Your task to perform on an android device: clear history in the chrome app Image 0: 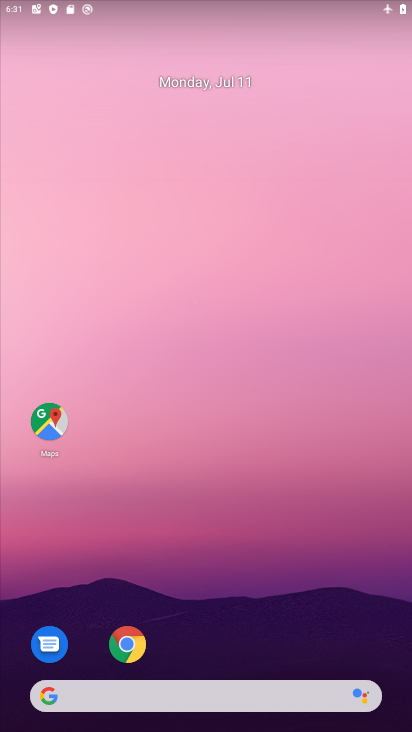
Step 0: drag from (112, 696) to (212, 95)
Your task to perform on an android device: clear history in the chrome app Image 1: 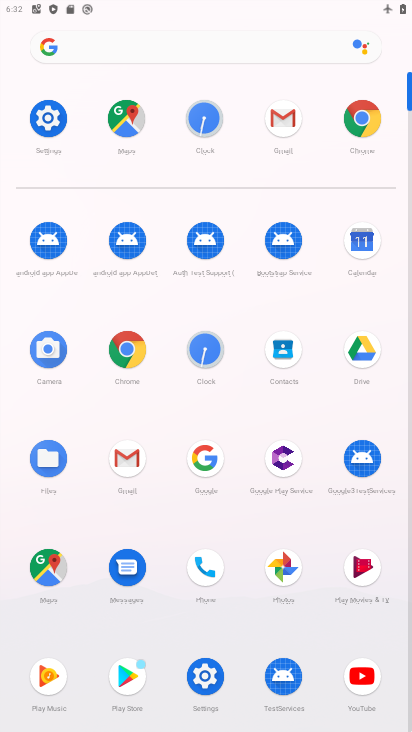
Step 1: click (112, 342)
Your task to perform on an android device: clear history in the chrome app Image 2: 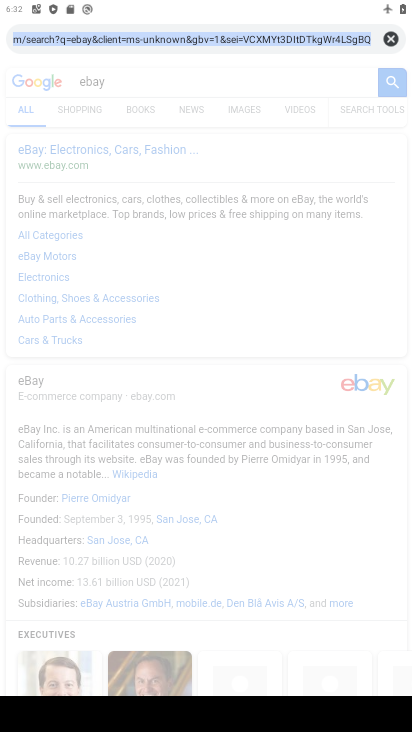
Step 2: press back button
Your task to perform on an android device: clear history in the chrome app Image 3: 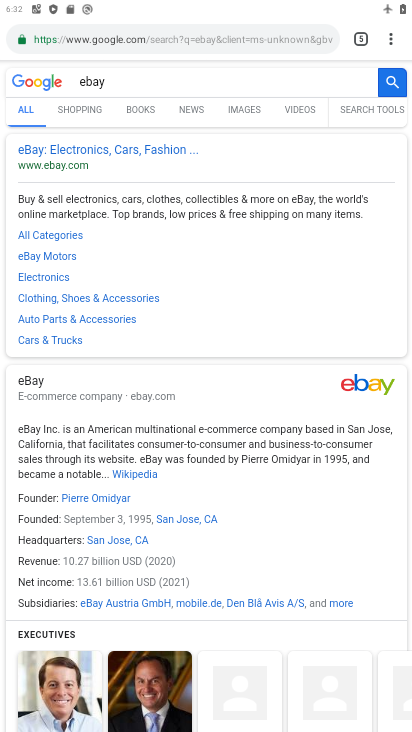
Step 3: drag from (389, 39) to (280, 230)
Your task to perform on an android device: clear history in the chrome app Image 4: 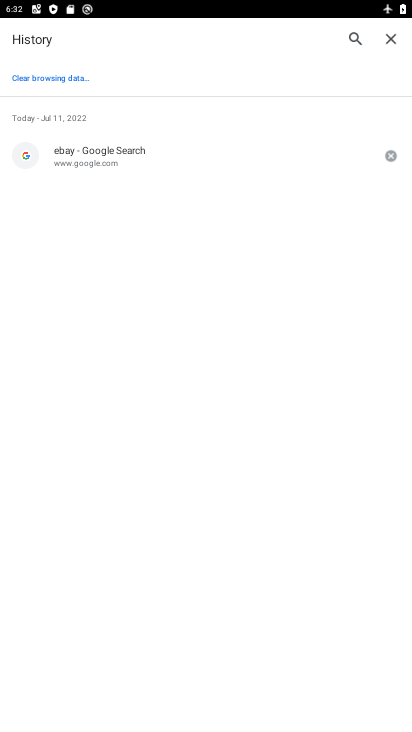
Step 4: click (69, 79)
Your task to perform on an android device: clear history in the chrome app Image 5: 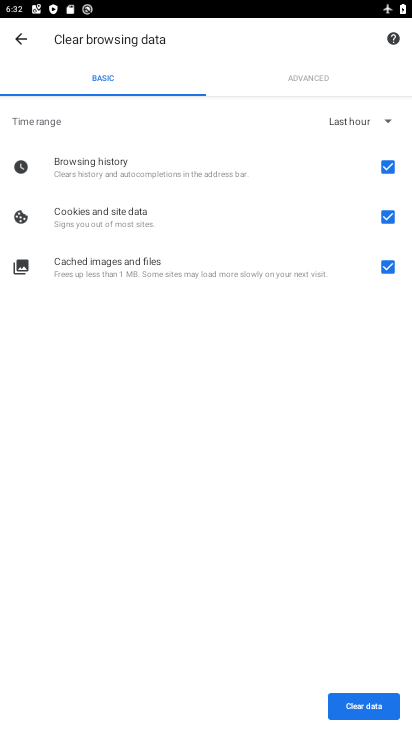
Step 5: click (366, 708)
Your task to perform on an android device: clear history in the chrome app Image 6: 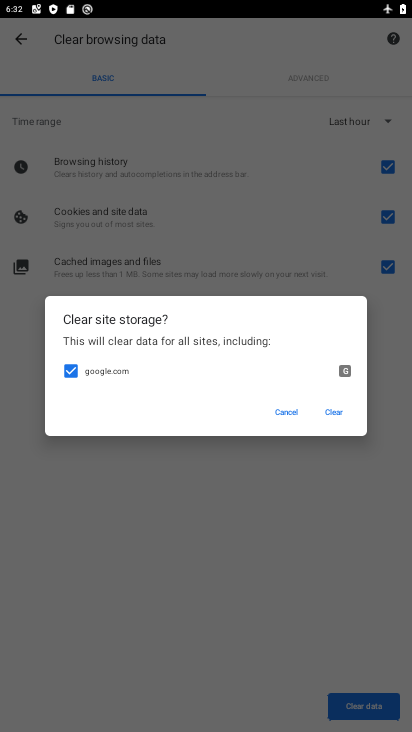
Step 6: click (337, 405)
Your task to perform on an android device: clear history in the chrome app Image 7: 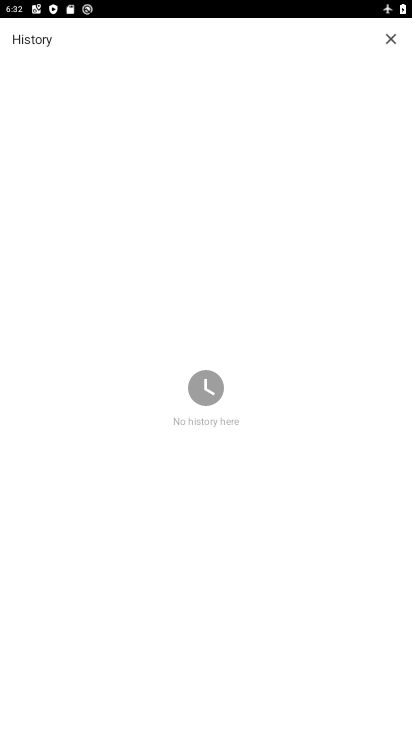
Step 7: press home button
Your task to perform on an android device: clear history in the chrome app Image 8: 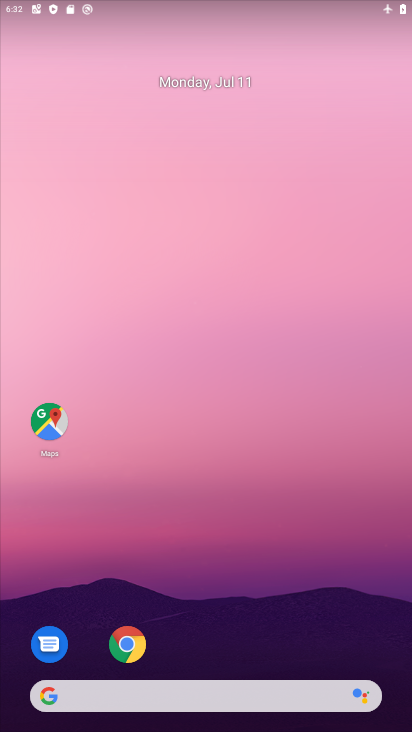
Step 8: drag from (256, 699) to (229, 0)
Your task to perform on an android device: clear history in the chrome app Image 9: 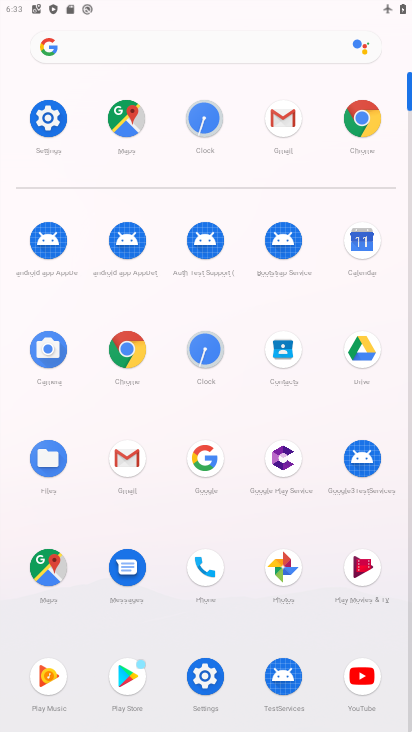
Step 9: click (137, 346)
Your task to perform on an android device: clear history in the chrome app Image 10: 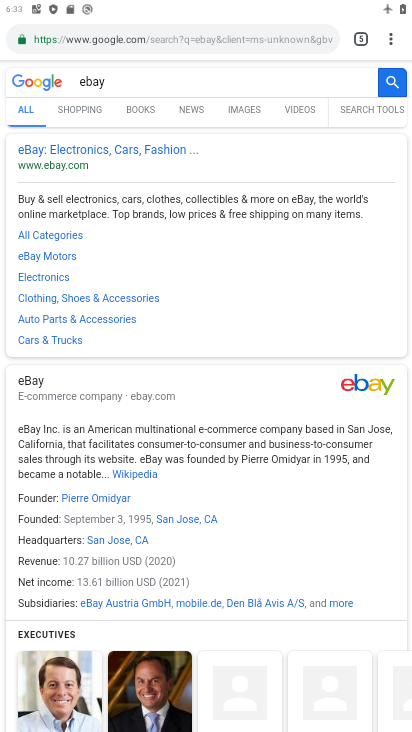
Step 10: task complete